Your task to perform on an android device: remove spam from my inbox in the gmail app Image 0: 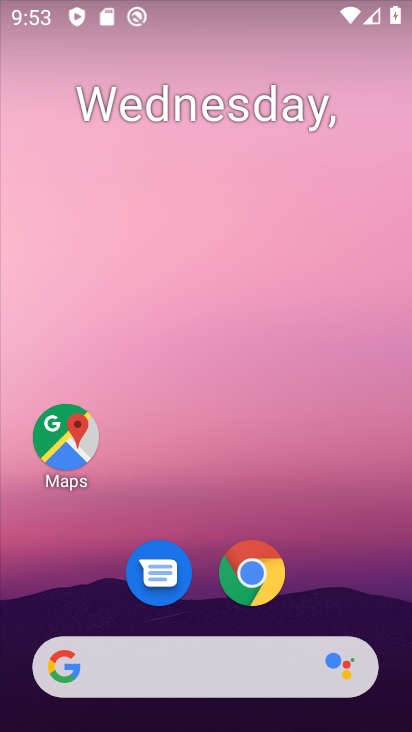
Step 0: drag from (360, 596) to (365, 239)
Your task to perform on an android device: remove spam from my inbox in the gmail app Image 1: 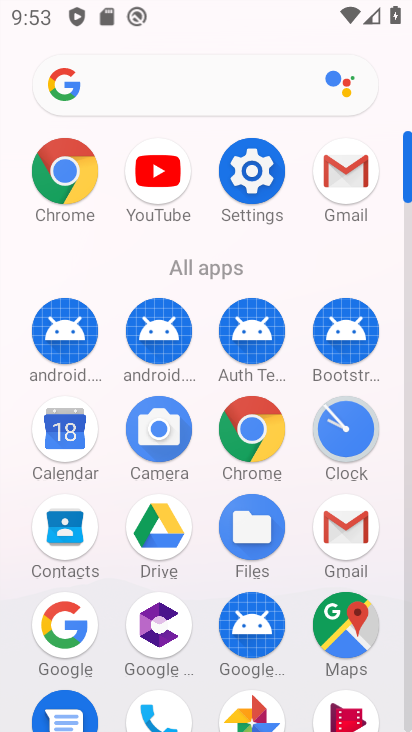
Step 1: click (350, 554)
Your task to perform on an android device: remove spam from my inbox in the gmail app Image 2: 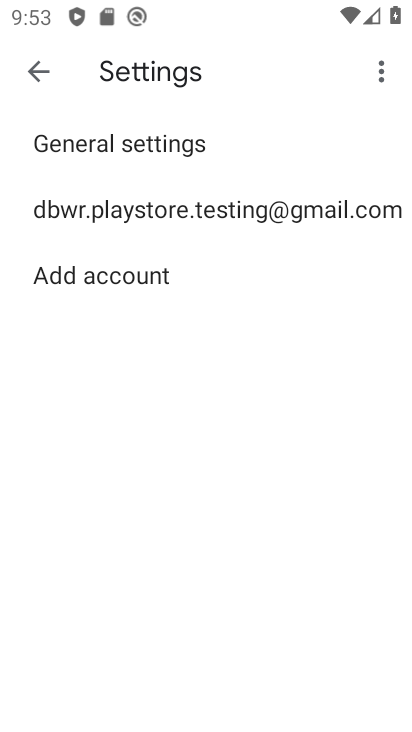
Step 2: click (28, 71)
Your task to perform on an android device: remove spam from my inbox in the gmail app Image 3: 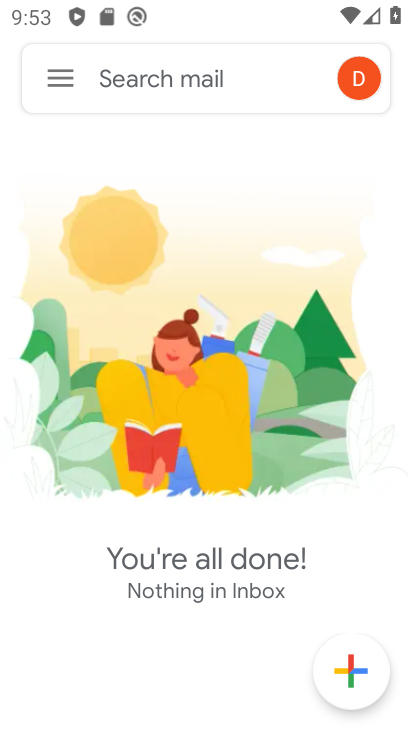
Step 3: click (57, 65)
Your task to perform on an android device: remove spam from my inbox in the gmail app Image 4: 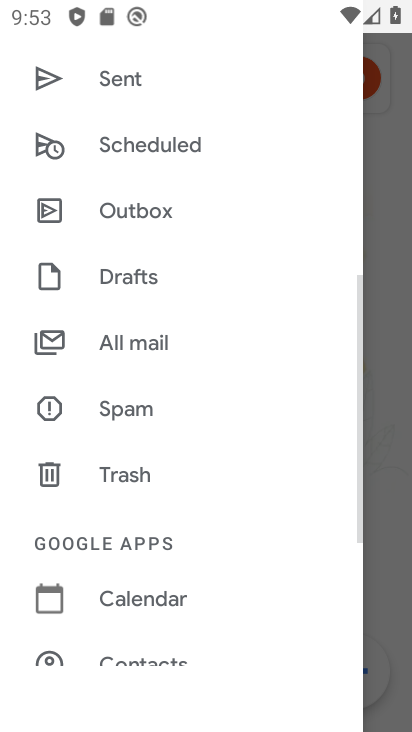
Step 4: drag from (279, 562) to (276, 456)
Your task to perform on an android device: remove spam from my inbox in the gmail app Image 5: 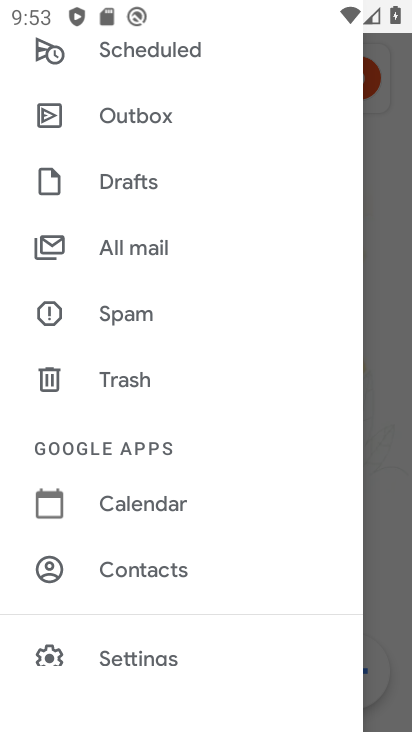
Step 5: drag from (263, 628) to (284, 466)
Your task to perform on an android device: remove spam from my inbox in the gmail app Image 6: 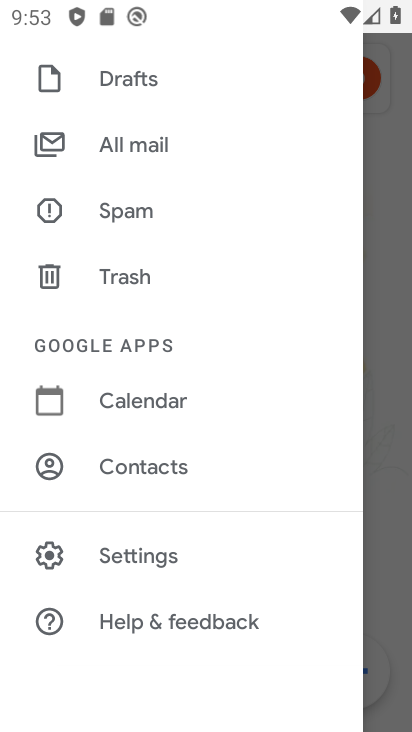
Step 6: drag from (277, 629) to (278, 446)
Your task to perform on an android device: remove spam from my inbox in the gmail app Image 7: 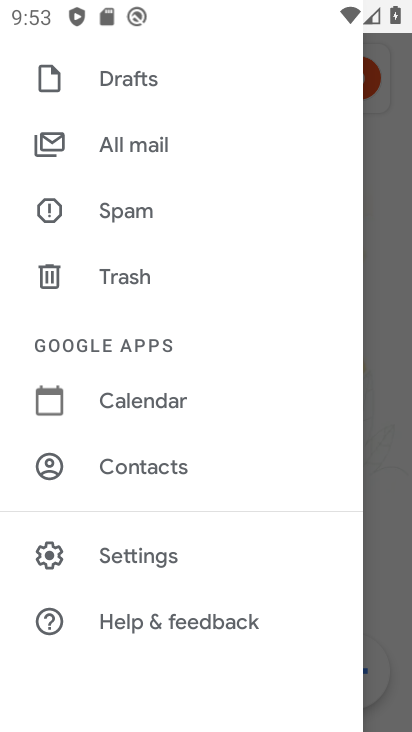
Step 7: drag from (288, 289) to (274, 506)
Your task to perform on an android device: remove spam from my inbox in the gmail app Image 8: 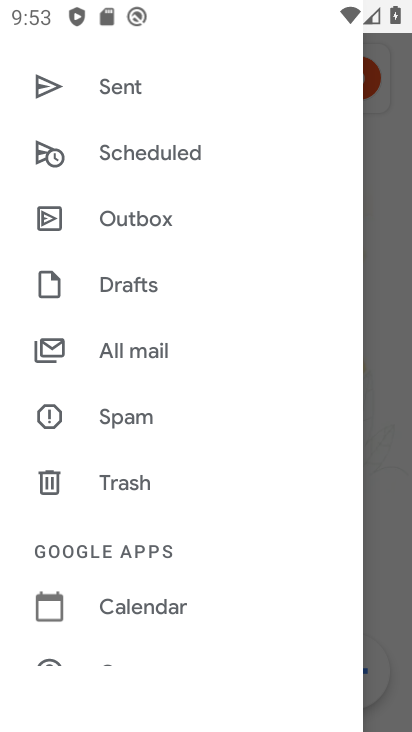
Step 8: drag from (275, 322) to (265, 509)
Your task to perform on an android device: remove spam from my inbox in the gmail app Image 9: 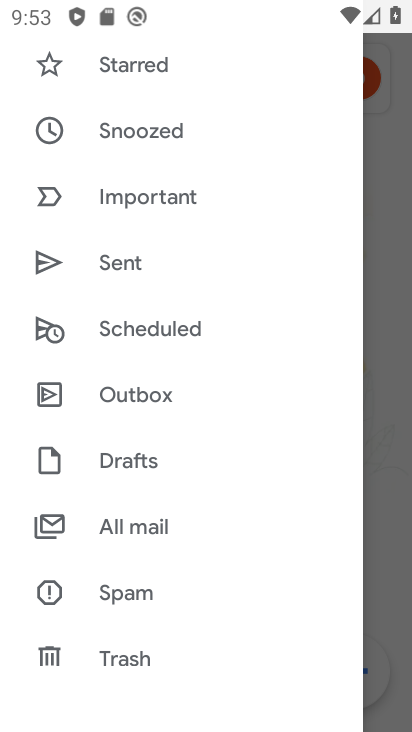
Step 9: drag from (269, 261) to (272, 467)
Your task to perform on an android device: remove spam from my inbox in the gmail app Image 10: 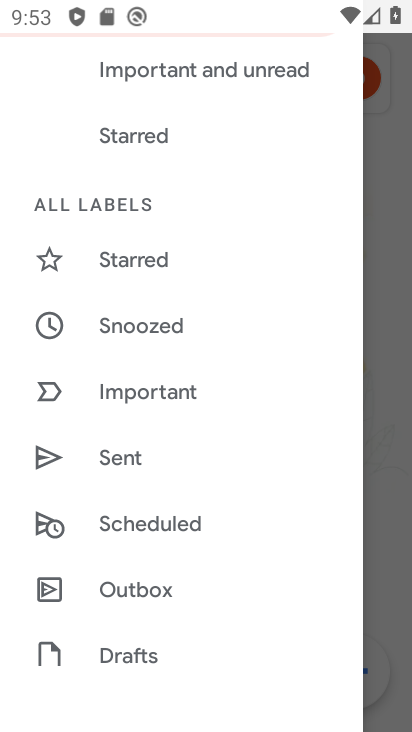
Step 10: drag from (286, 295) to (281, 501)
Your task to perform on an android device: remove spam from my inbox in the gmail app Image 11: 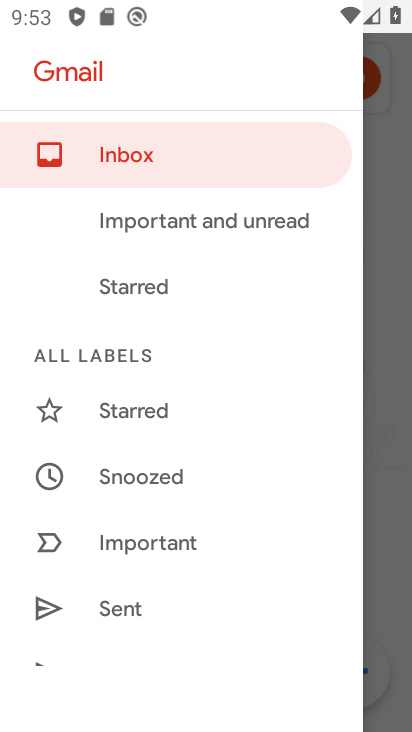
Step 11: drag from (293, 288) to (286, 517)
Your task to perform on an android device: remove spam from my inbox in the gmail app Image 12: 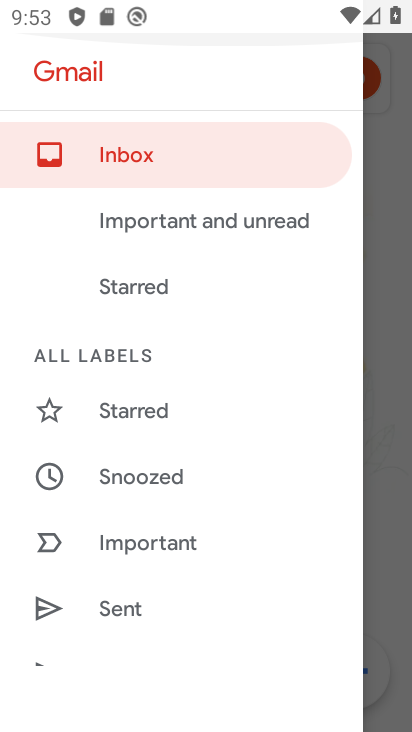
Step 12: drag from (282, 571) to (278, 380)
Your task to perform on an android device: remove spam from my inbox in the gmail app Image 13: 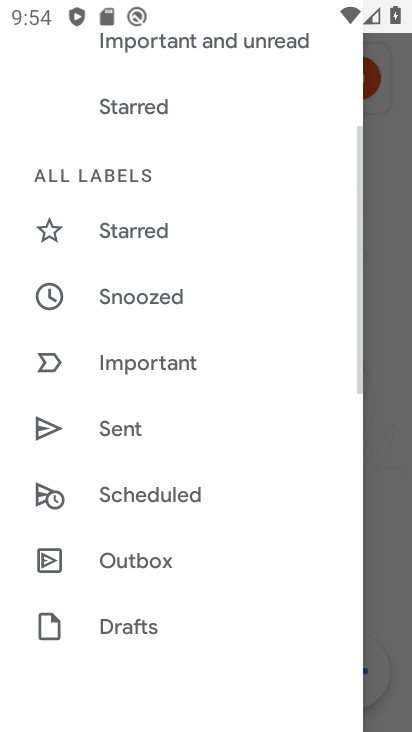
Step 13: drag from (272, 575) to (283, 401)
Your task to perform on an android device: remove spam from my inbox in the gmail app Image 14: 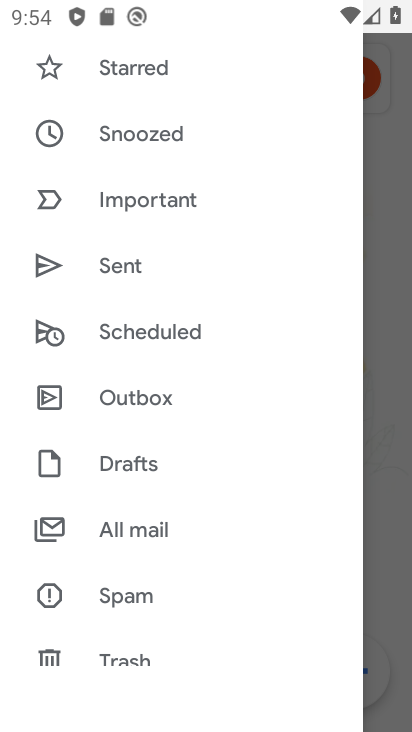
Step 14: drag from (271, 567) to (264, 347)
Your task to perform on an android device: remove spam from my inbox in the gmail app Image 15: 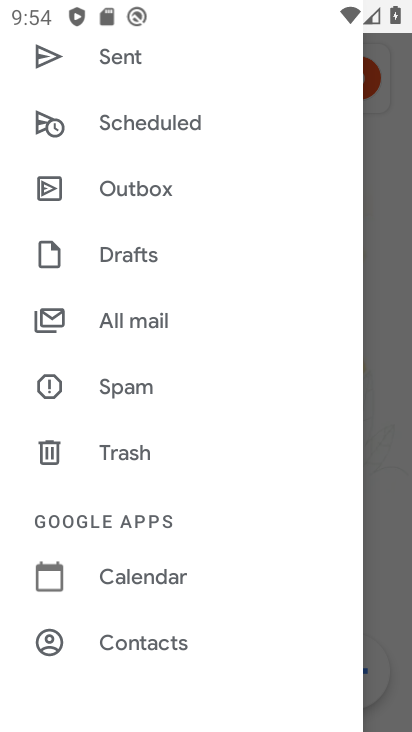
Step 15: click (148, 391)
Your task to perform on an android device: remove spam from my inbox in the gmail app Image 16: 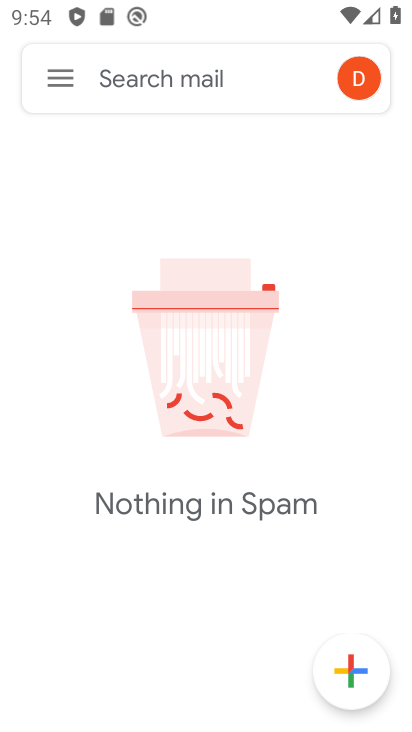
Step 16: task complete